Your task to perform on an android device: Search for a custom made wallet on Etsy Image 0: 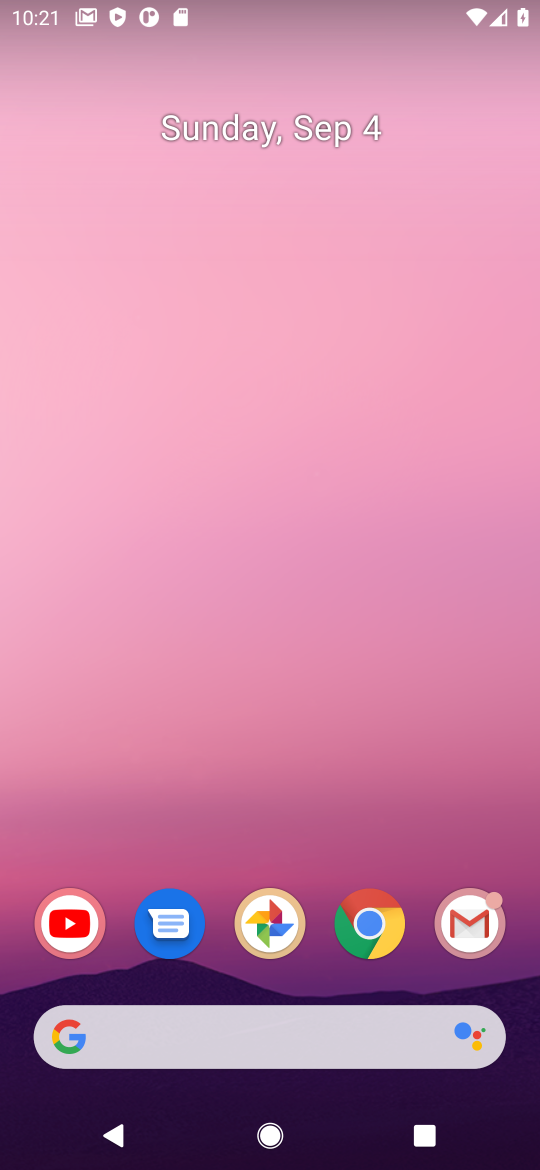
Step 0: click (144, 1041)
Your task to perform on an android device: Search for a custom made wallet on Etsy Image 1: 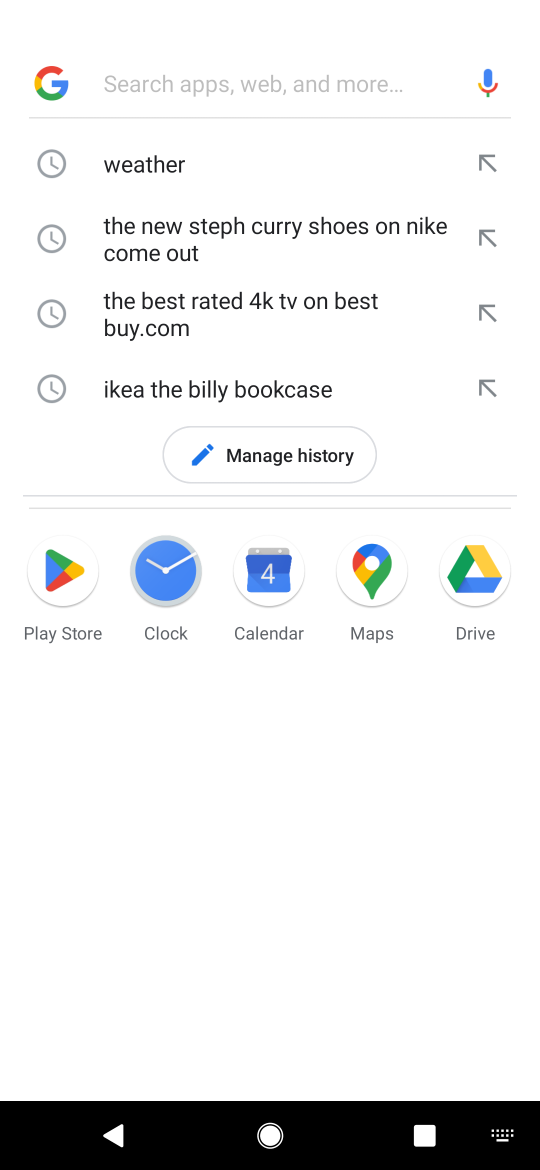
Step 1: type "custom made wallet on Etsy"
Your task to perform on an android device: Search for a custom made wallet on Etsy Image 2: 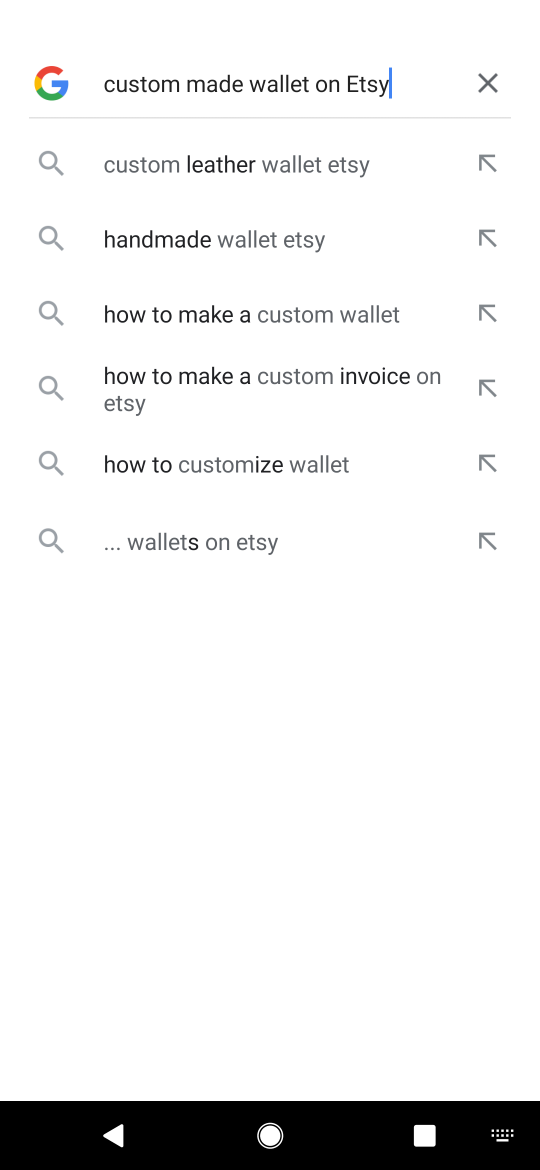
Step 2: click (249, 162)
Your task to perform on an android device: Search for a custom made wallet on Etsy Image 3: 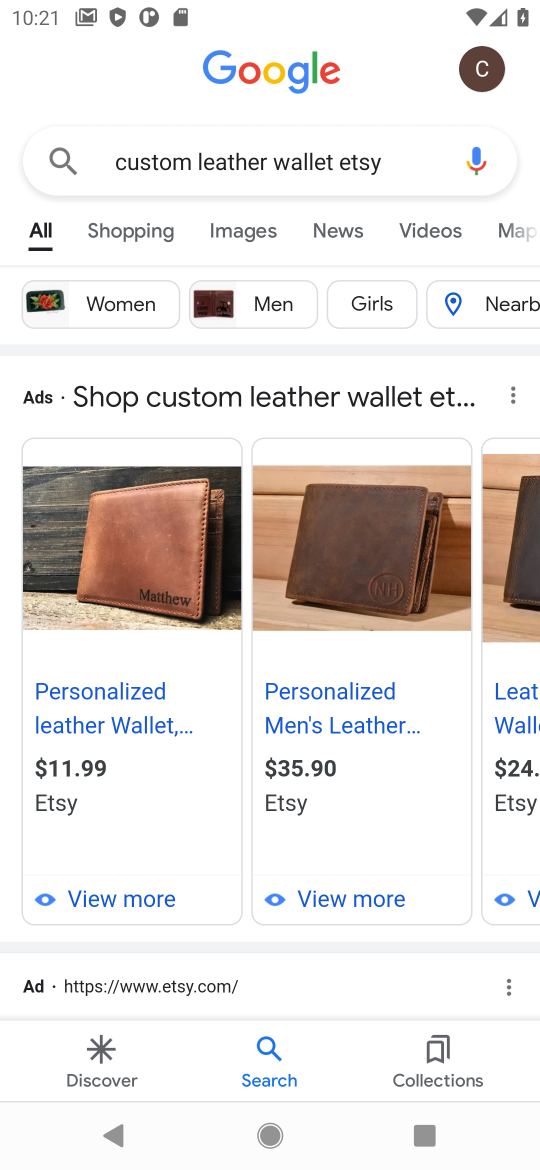
Step 3: task complete